Your task to perform on an android device: turn off translation in the chrome app Image 0: 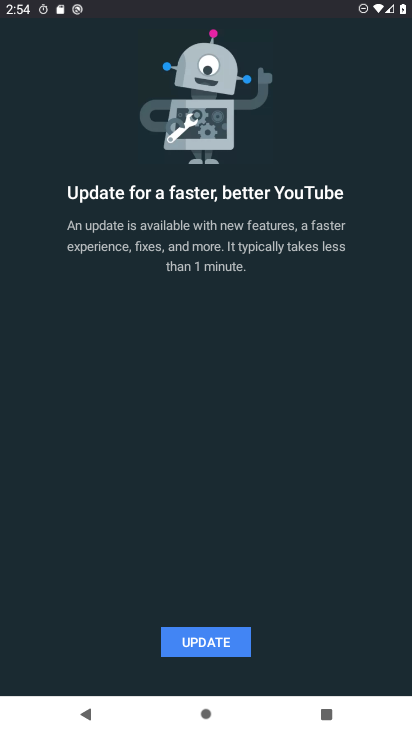
Step 0: press home button
Your task to perform on an android device: turn off translation in the chrome app Image 1: 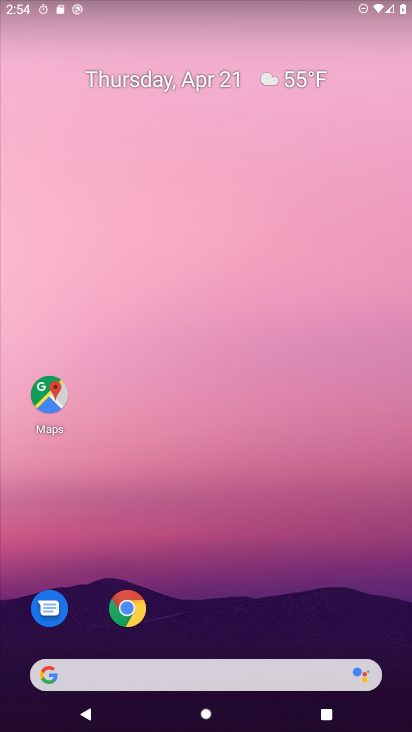
Step 1: click (118, 605)
Your task to perform on an android device: turn off translation in the chrome app Image 2: 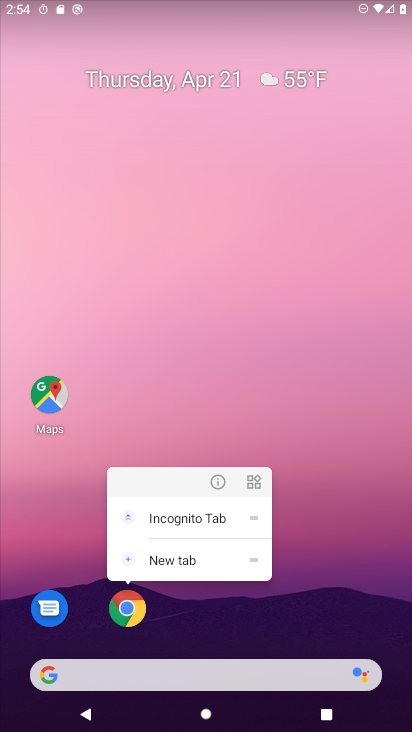
Step 2: click (116, 615)
Your task to perform on an android device: turn off translation in the chrome app Image 3: 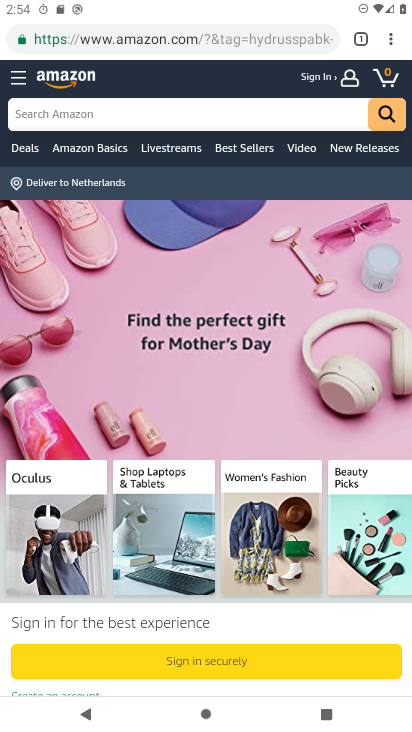
Step 3: click (384, 39)
Your task to perform on an android device: turn off translation in the chrome app Image 4: 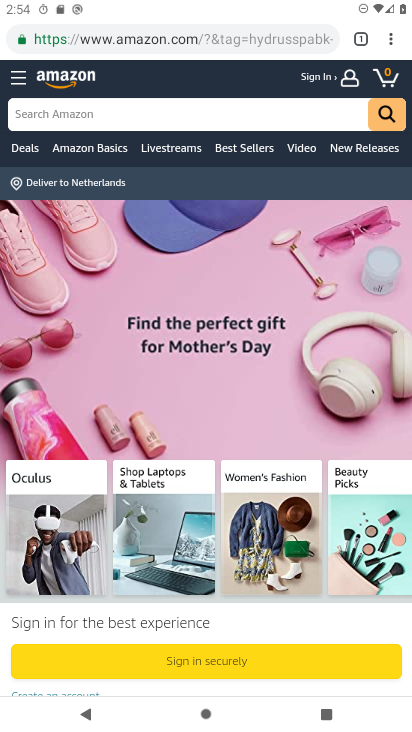
Step 4: click (384, 50)
Your task to perform on an android device: turn off translation in the chrome app Image 5: 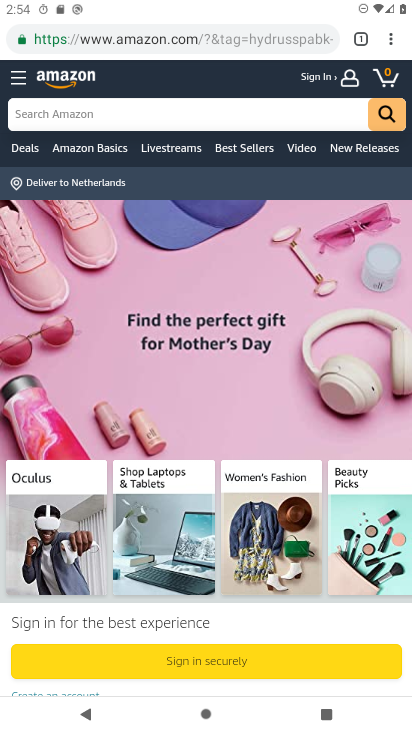
Step 5: click (384, 39)
Your task to perform on an android device: turn off translation in the chrome app Image 6: 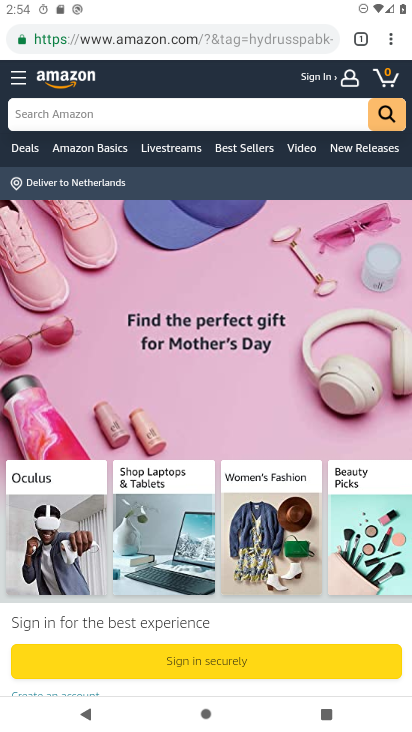
Step 6: click (382, 39)
Your task to perform on an android device: turn off translation in the chrome app Image 7: 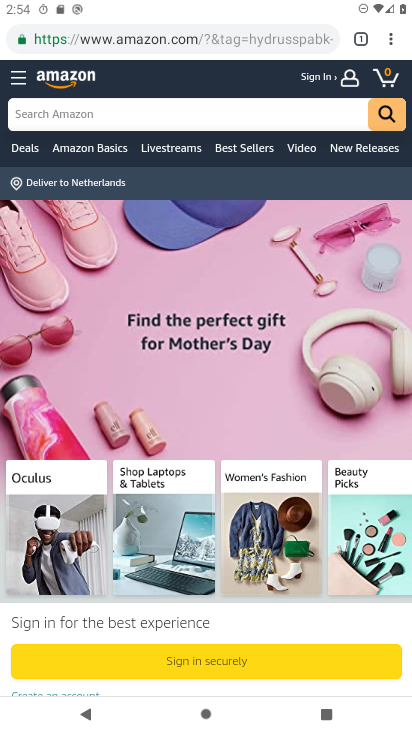
Step 7: click (382, 39)
Your task to perform on an android device: turn off translation in the chrome app Image 8: 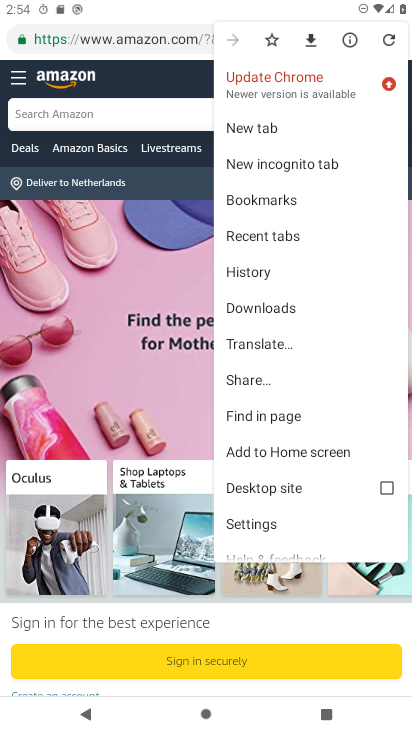
Step 8: click (290, 513)
Your task to perform on an android device: turn off translation in the chrome app Image 9: 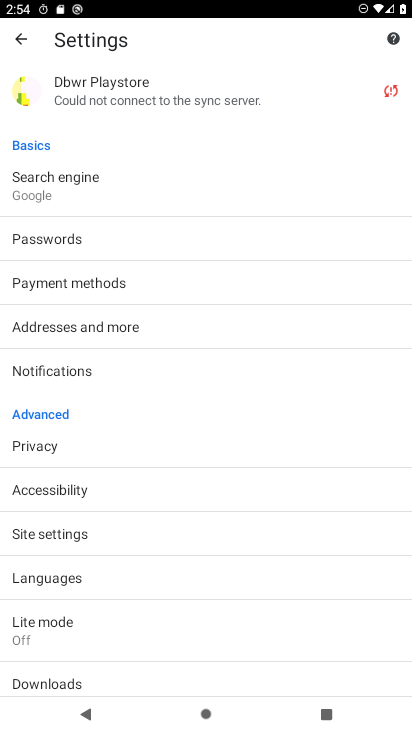
Step 9: click (159, 581)
Your task to perform on an android device: turn off translation in the chrome app Image 10: 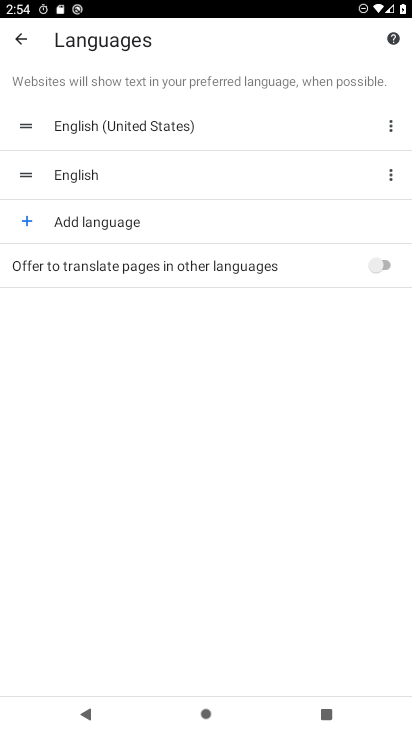
Step 10: task complete